Your task to perform on an android device: Open the web browser Image 0: 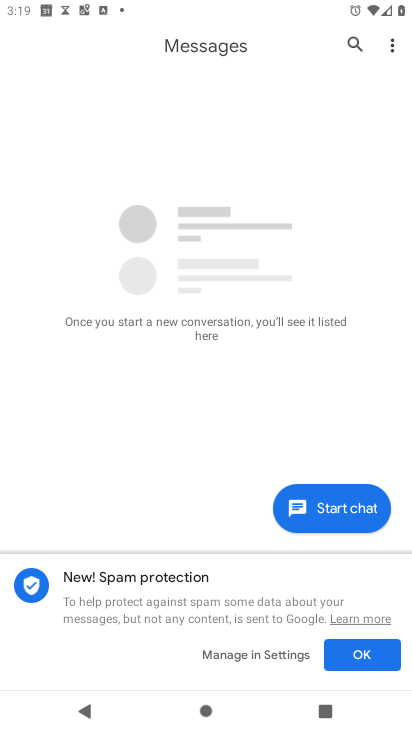
Step 0: press home button
Your task to perform on an android device: Open the web browser Image 1: 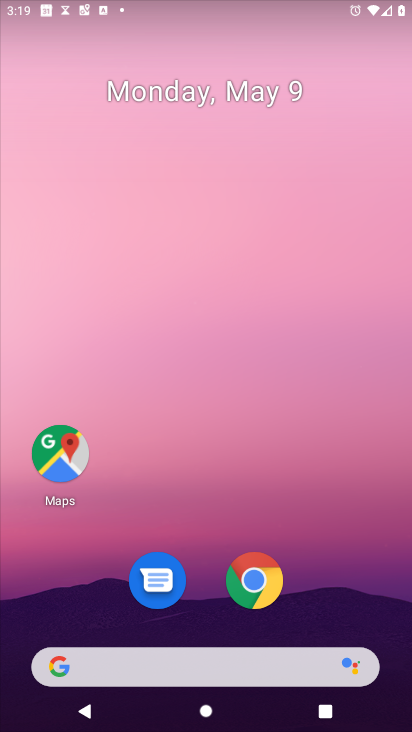
Step 1: click (258, 582)
Your task to perform on an android device: Open the web browser Image 2: 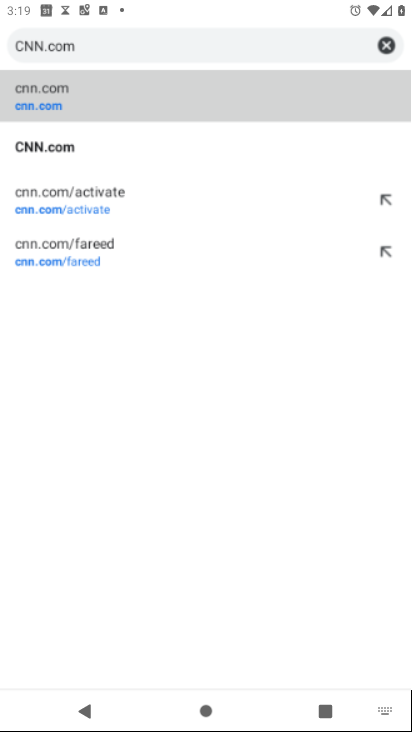
Step 2: task complete